Your task to perform on an android device: check google app version Image 0: 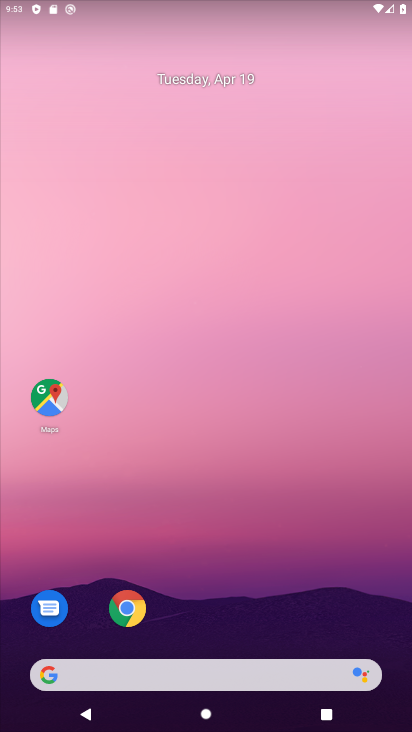
Step 0: drag from (208, 612) to (304, 115)
Your task to perform on an android device: check google app version Image 1: 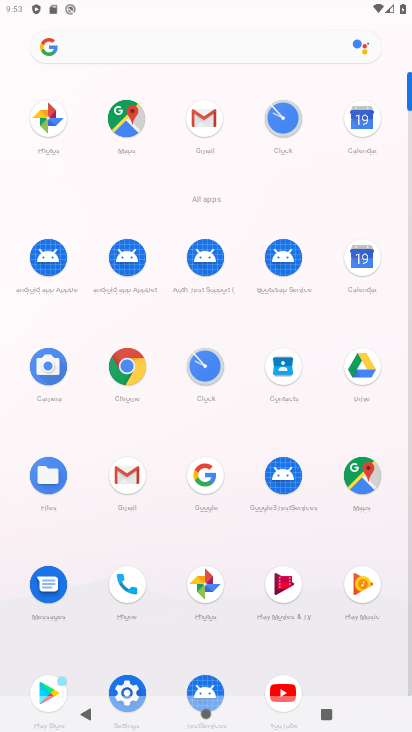
Step 1: click (121, 689)
Your task to perform on an android device: check google app version Image 2: 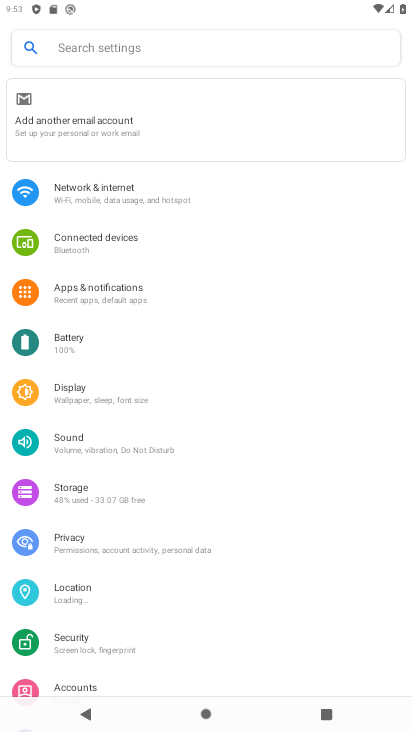
Step 2: click (169, 297)
Your task to perform on an android device: check google app version Image 3: 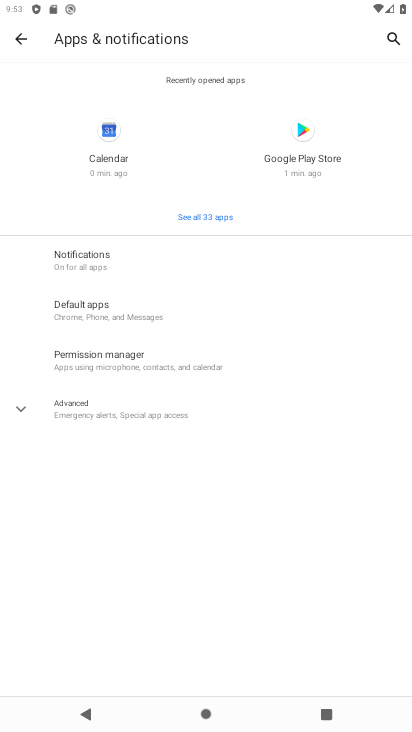
Step 3: click (226, 217)
Your task to perform on an android device: check google app version Image 4: 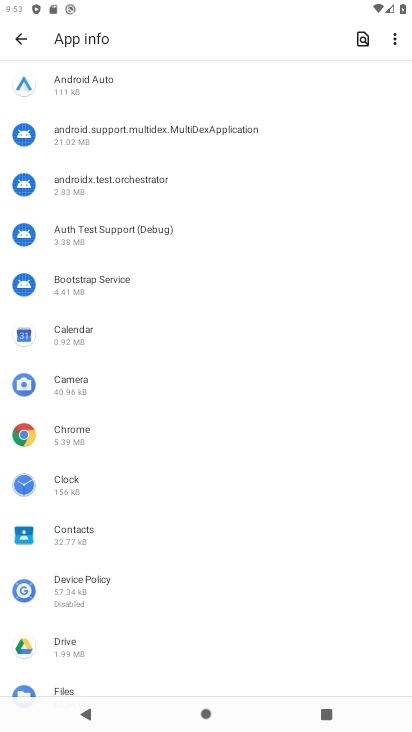
Step 4: drag from (179, 604) to (290, 0)
Your task to perform on an android device: check google app version Image 5: 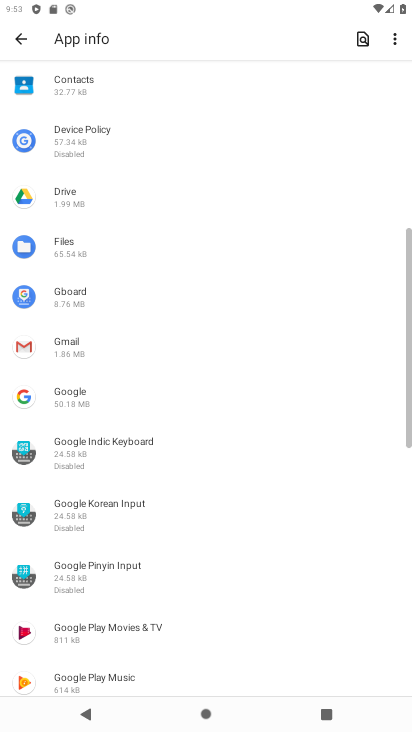
Step 5: drag from (158, 573) to (276, 88)
Your task to perform on an android device: check google app version Image 6: 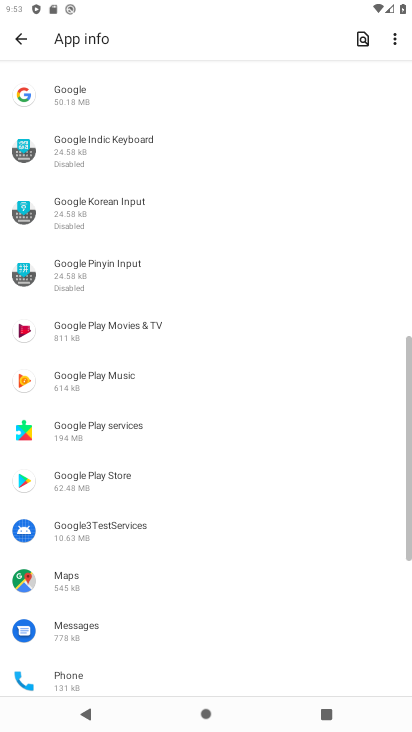
Step 6: drag from (153, 617) to (250, 122)
Your task to perform on an android device: check google app version Image 7: 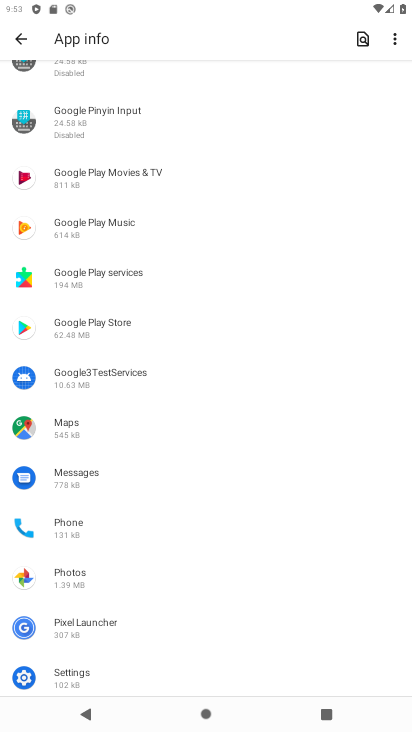
Step 7: click (119, 682)
Your task to perform on an android device: check google app version Image 8: 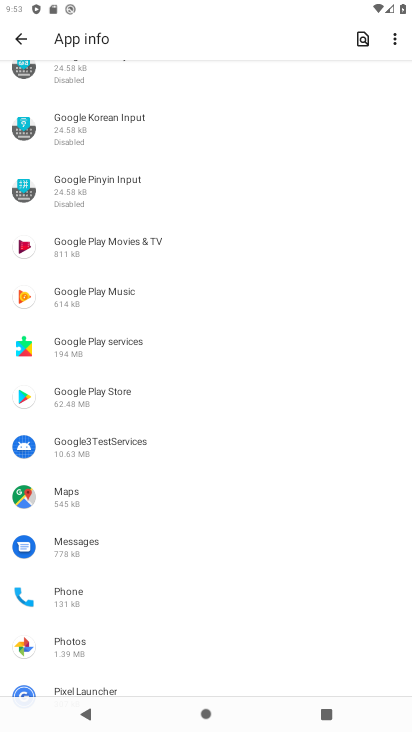
Step 8: drag from (201, 224) to (110, 676)
Your task to perform on an android device: check google app version Image 9: 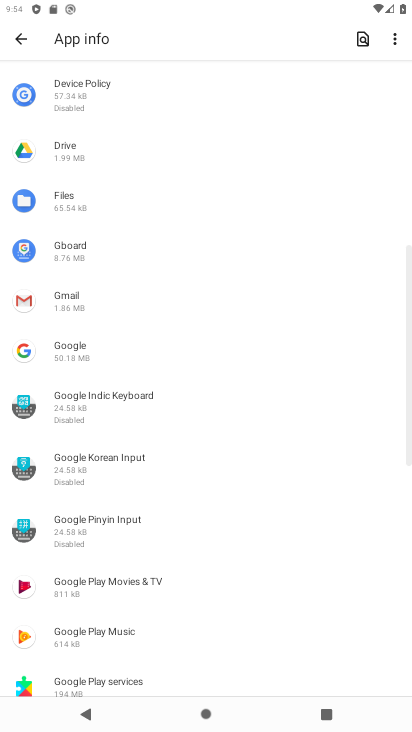
Step 9: click (141, 352)
Your task to perform on an android device: check google app version Image 10: 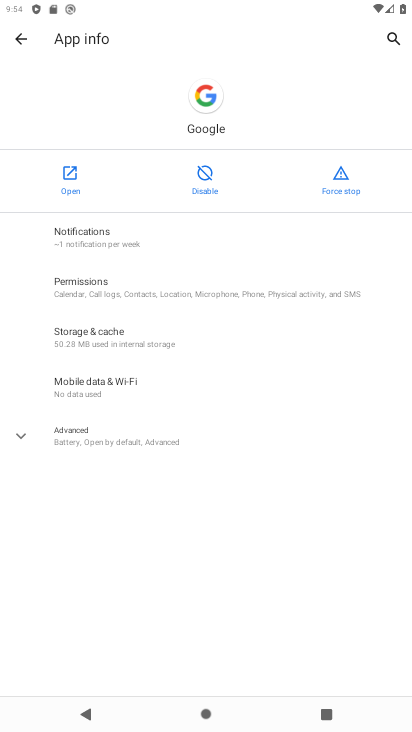
Step 10: click (165, 434)
Your task to perform on an android device: check google app version Image 11: 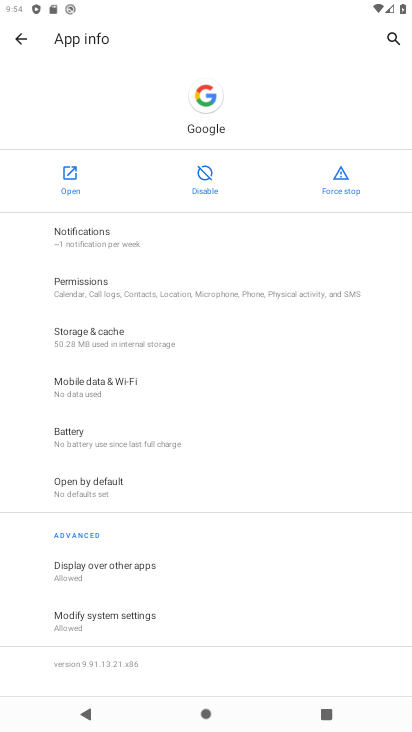
Step 11: task complete